Your task to perform on an android device: Open Google Maps and go to "Timeline" Image 0: 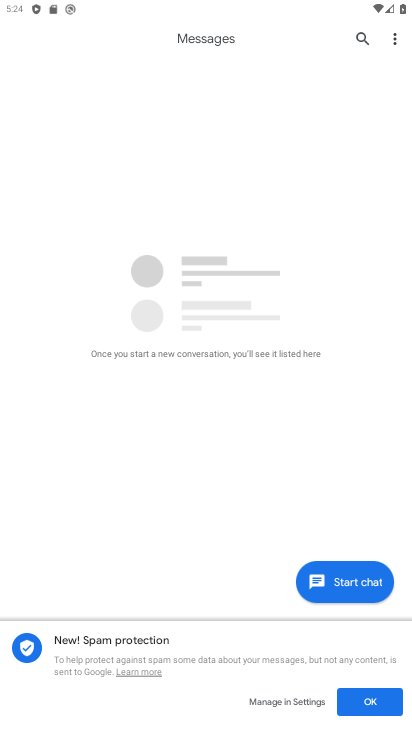
Step 0: press home button
Your task to perform on an android device: Open Google Maps and go to "Timeline" Image 1: 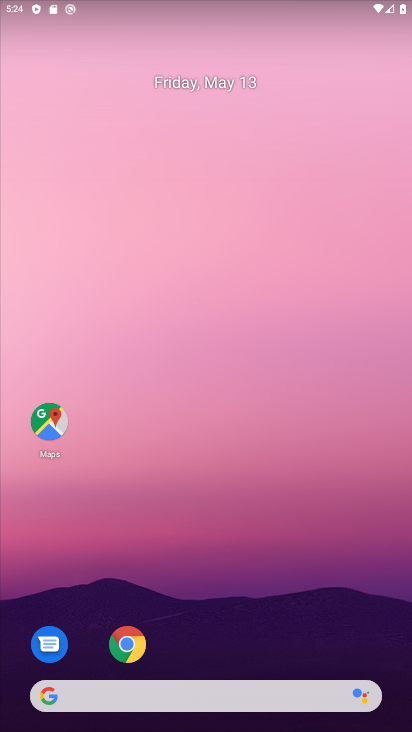
Step 1: click (68, 413)
Your task to perform on an android device: Open Google Maps and go to "Timeline" Image 2: 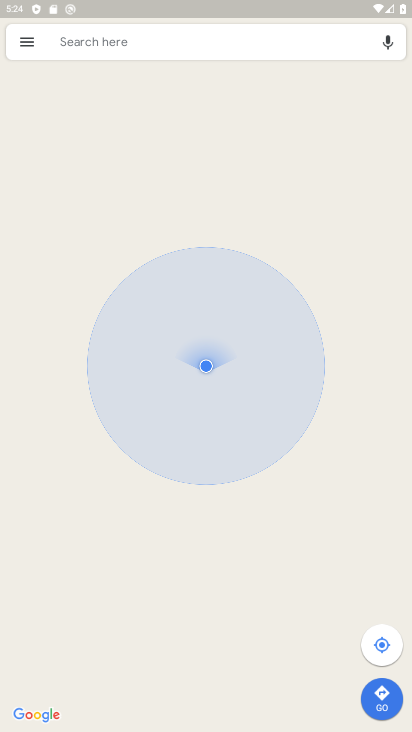
Step 2: click (20, 45)
Your task to perform on an android device: Open Google Maps and go to "Timeline" Image 3: 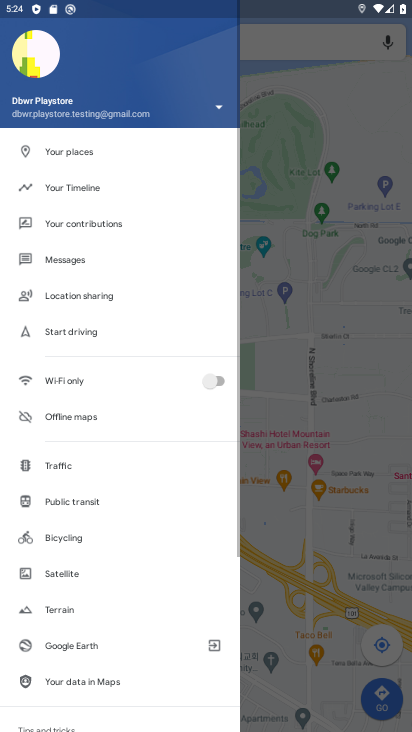
Step 3: click (82, 193)
Your task to perform on an android device: Open Google Maps and go to "Timeline" Image 4: 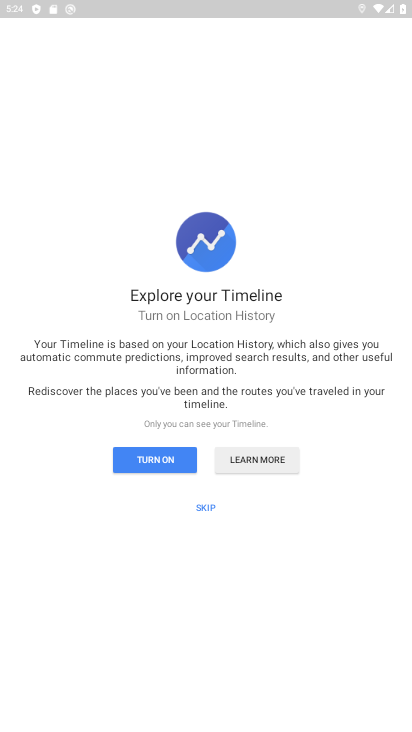
Step 4: click (200, 498)
Your task to perform on an android device: Open Google Maps and go to "Timeline" Image 5: 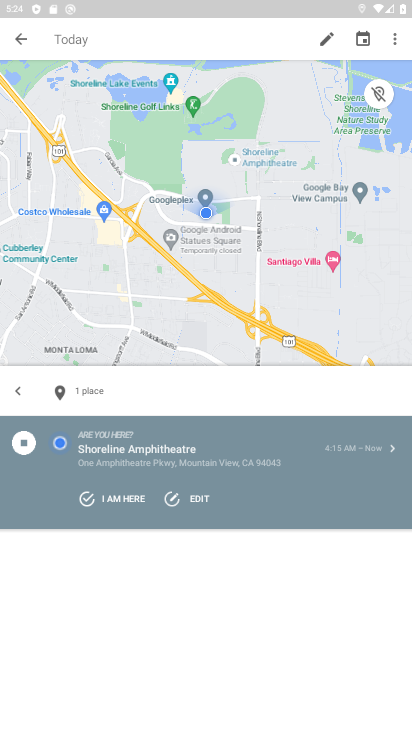
Step 5: task complete